Your task to perform on an android device: Open settings Image 0: 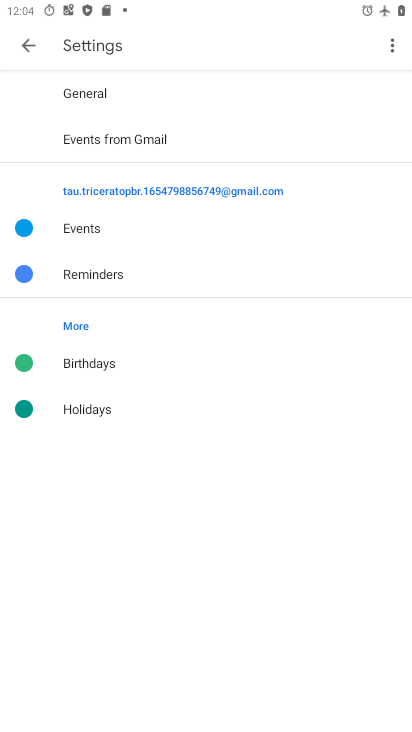
Step 0: press home button
Your task to perform on an android device: Open settings Image 1: 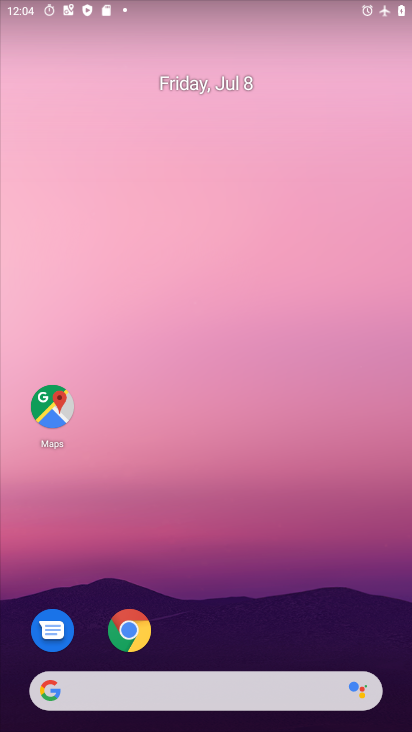
Step 1: drag from (195, 630) to (195, 161)
Your task to perform on an android device: Open settings Image 2: 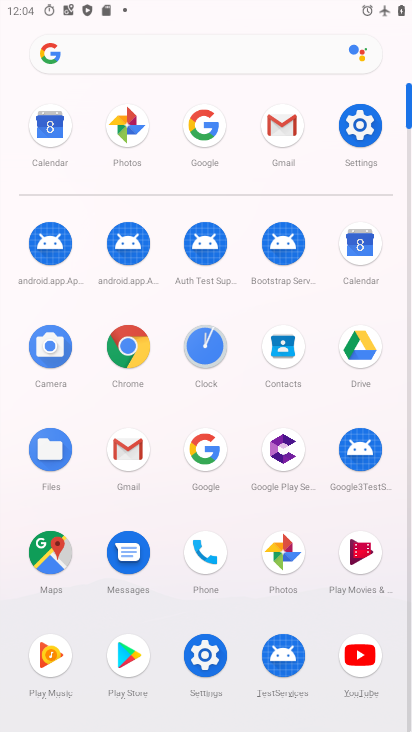
Step 2: click (344, 132)
Your task to perform on an android device: Open settings Image 3: 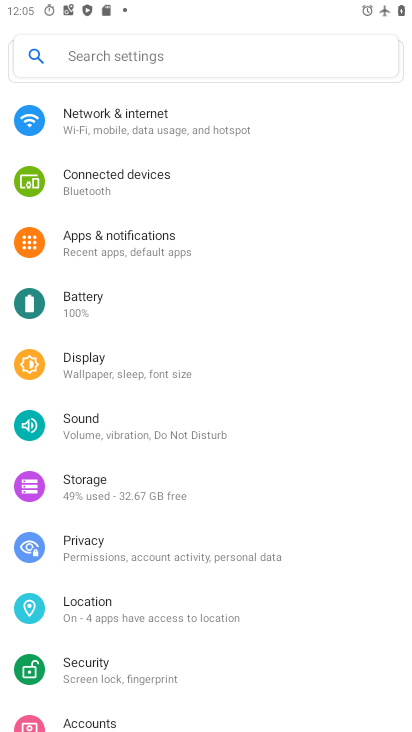
Step 3: task complete